Your task to perform on an android device: turn off location history Image 0: 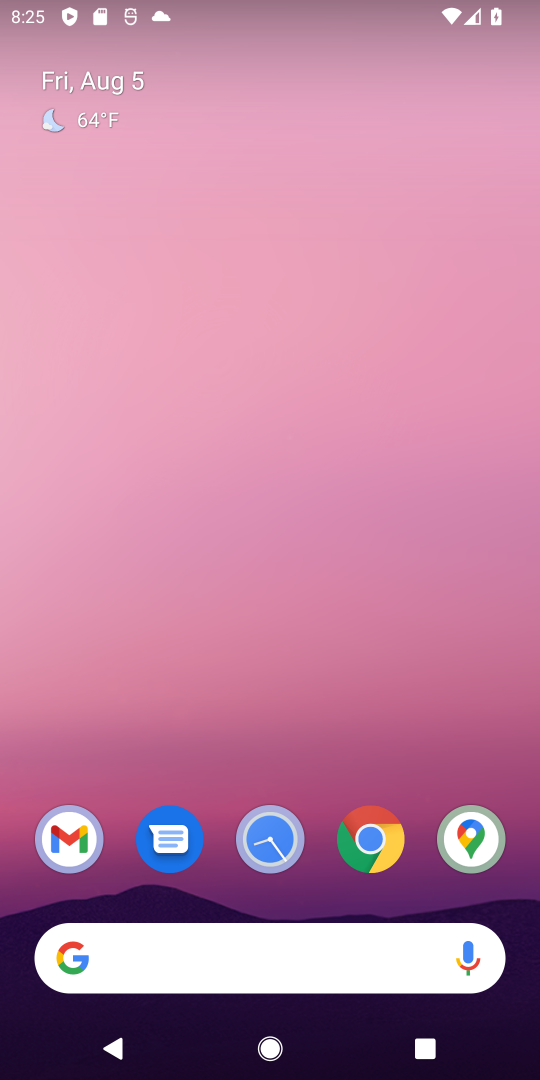
Step 0: drag from (321, 893) to (314, 36)
Your task to perform on an android device: turn off location history Image 1: 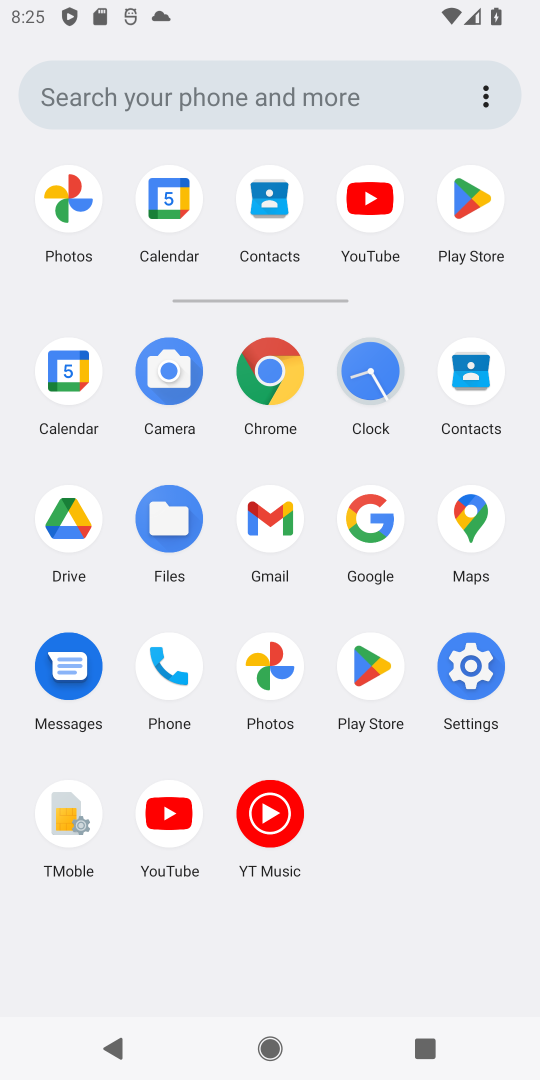
Step 1: click (485, 681)
Your task to perform on an android device: turn off location history Image 2: 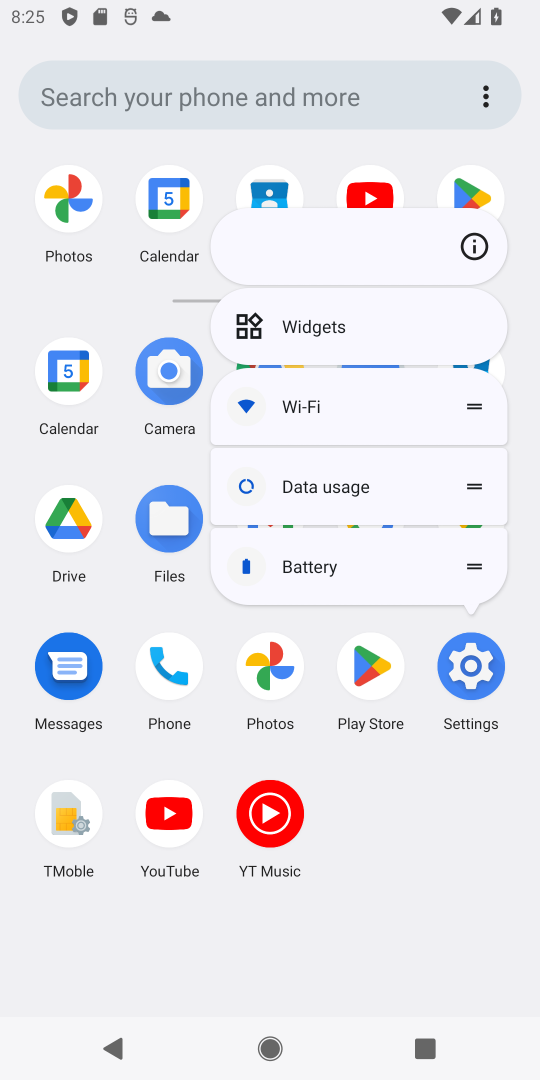
Step 2: click (463, 671)
Your task to perform on an android device: turn off location history Image 3: 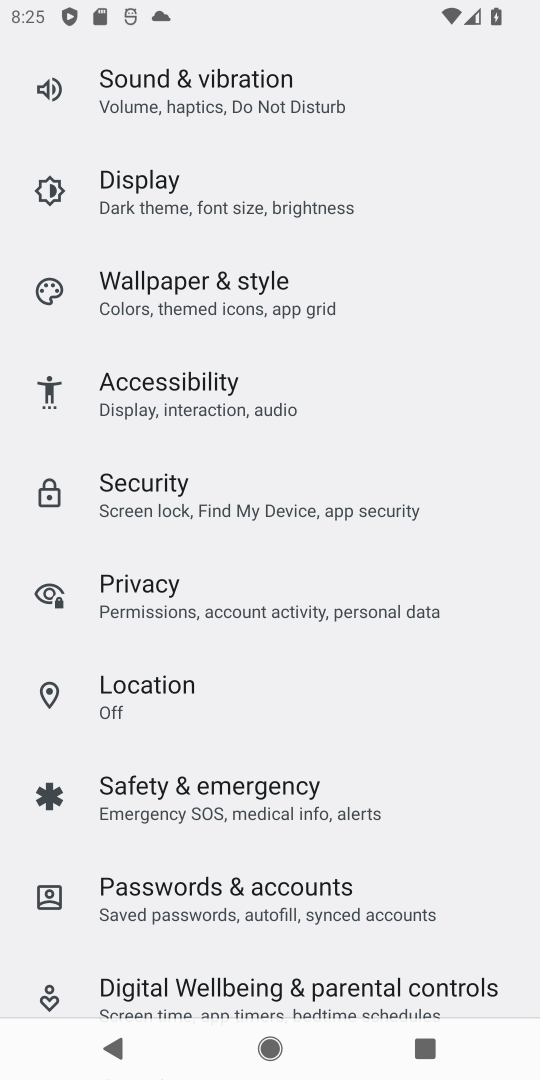
Step 3: click (138, 690)
Your task to perform on an android device: turn off location history Image 4: 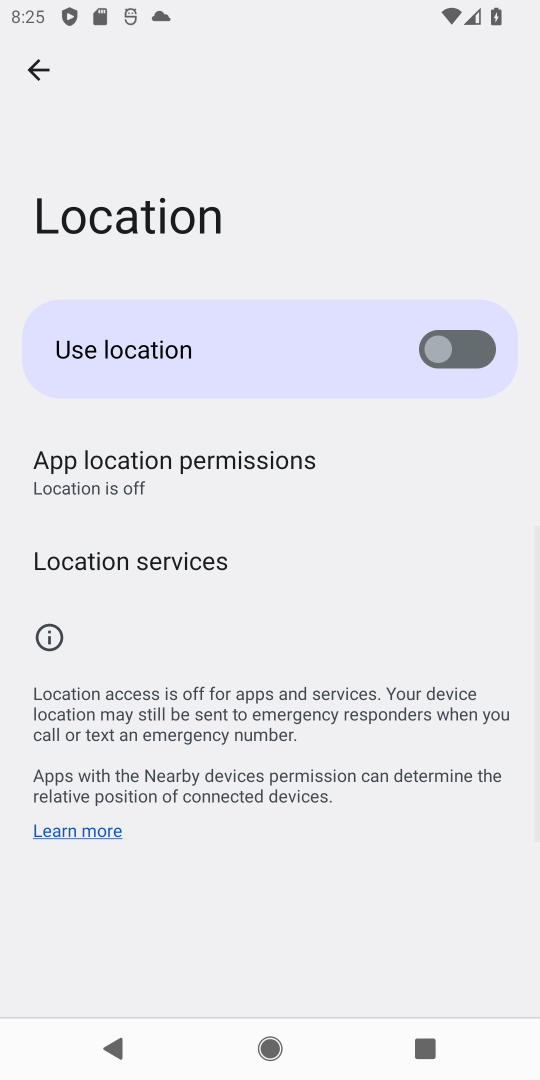
Step 4: drag from (197, 838) to (200, 556)
Your task to perform on an android device: turn off location history Image 5: 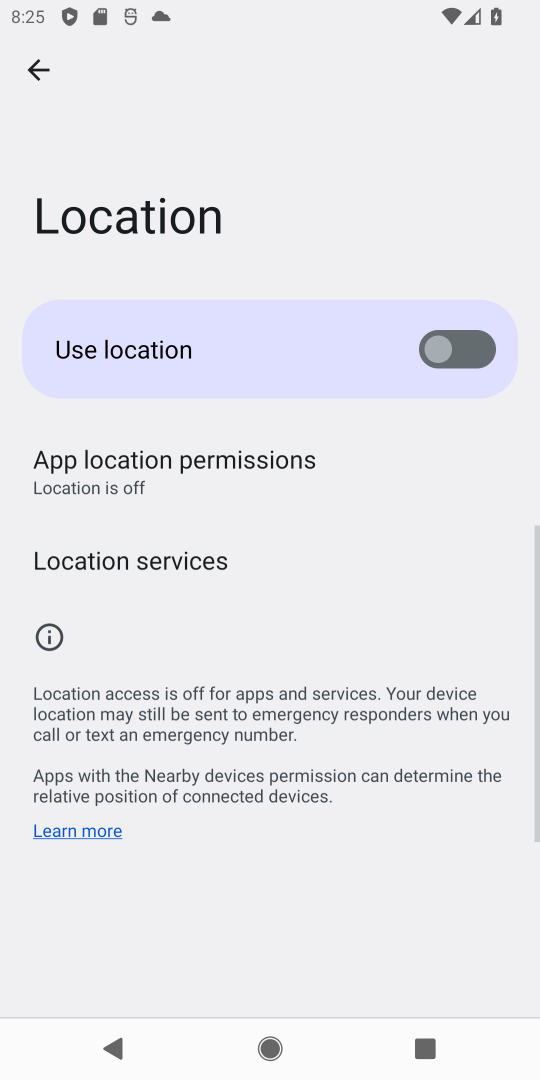
Step 5: click (160, 562)
Your task to perform on an android device: turn off location history Image 6: 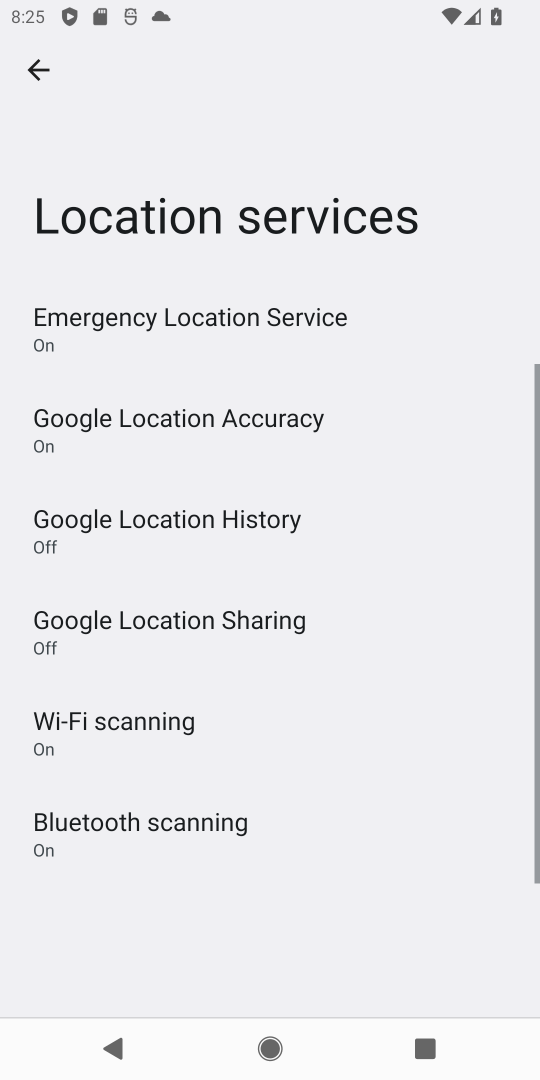
Step 6: click (271, 511)
Your task to perform on an android device: turn off location history Image 7: 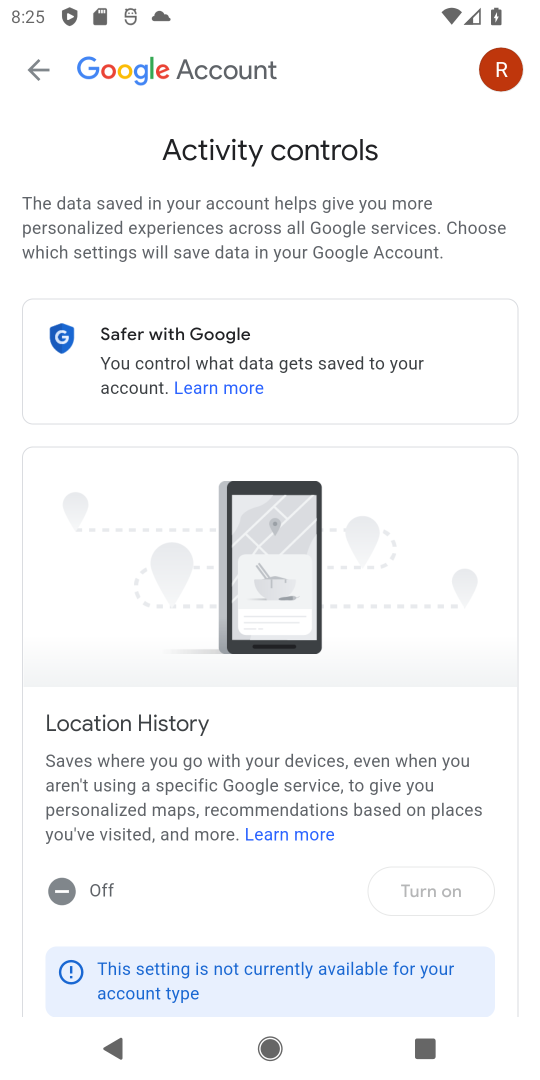
Step 7: task complete